Your task to perform on an android device: Go to sound settings Image 0: 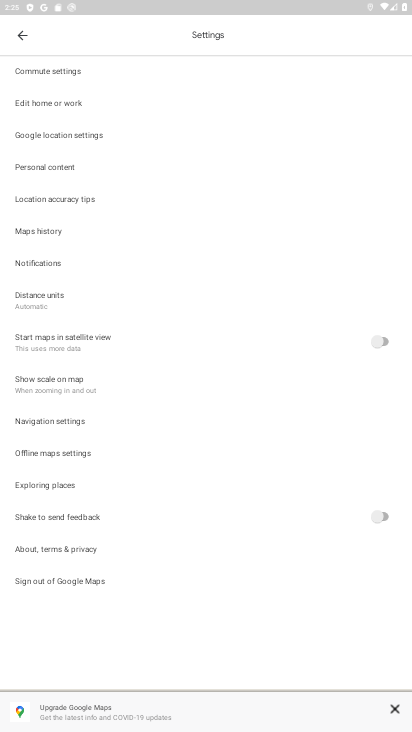
Step 0: drag from (177, 690) to (177, 211)
Your task to perform on an android device: Go to sound settings Image 1: 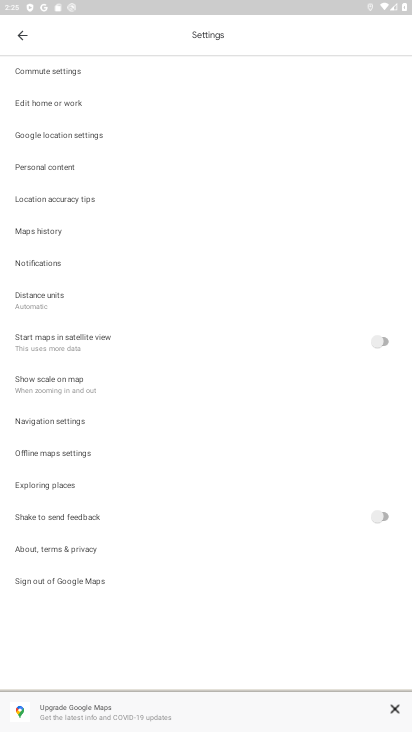
Step 1: press home button
Your task to perform on an android device: Go to sound settings Image 2: 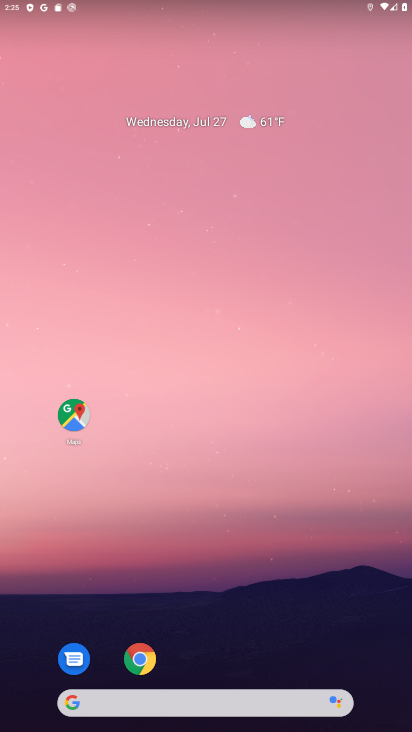
Step 2: drag from (232, 659) to (232, 268)
Your task to perform on an android device: Go to sound settings Image 3: 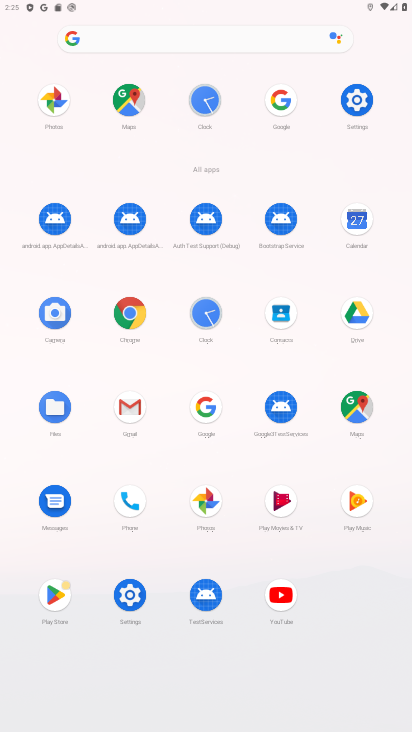
Step 3: click (354, 100)
Your task to perform on an android device: Go to sound settings Image 4: 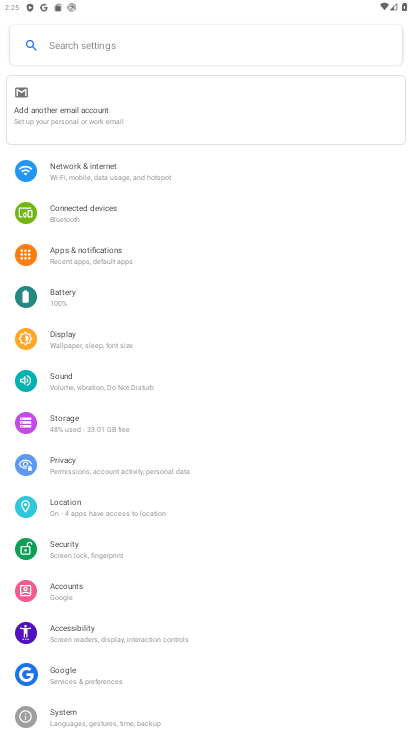
Step 4: click (70, 383)
Your task to perform on an android device: Go to sound settings Image 5: 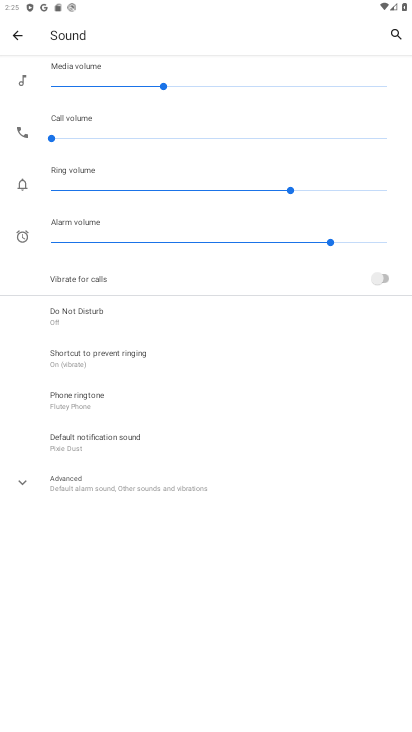
Step 5: click (85, 484)
Your task to perform on an android device: Go to sound settings Image 6: 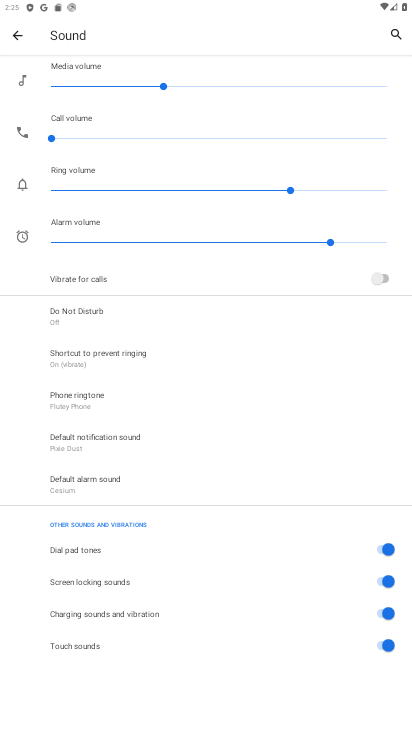
Step 6: task complete